Your task to perform on an android device: manage bookmarks in the chrome app Image 0: 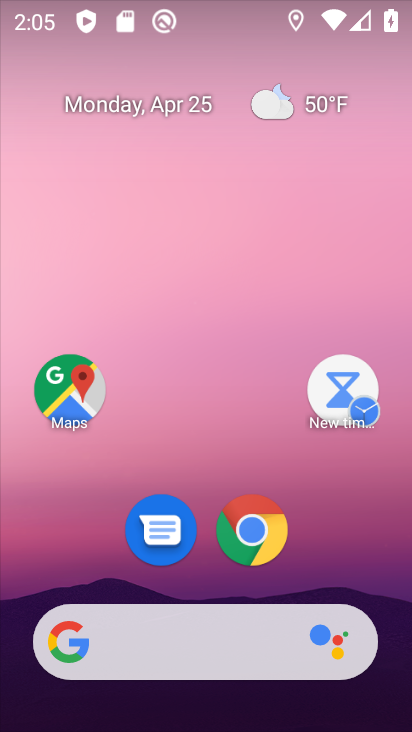
Step 0: drag from (197, 591) to (189, 4)
Your task to perform on an android device: manage bookmarks in the chrome app Image 1: 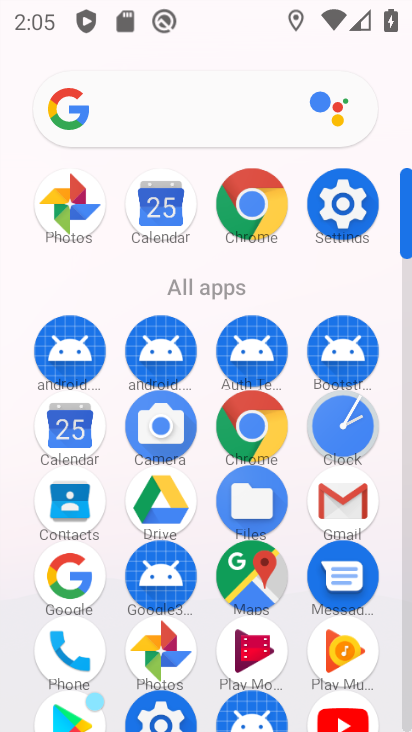
Step 1: click (257, 437)
Your task to perform on an android device: manage bookmarks in the chrome app Image 2: 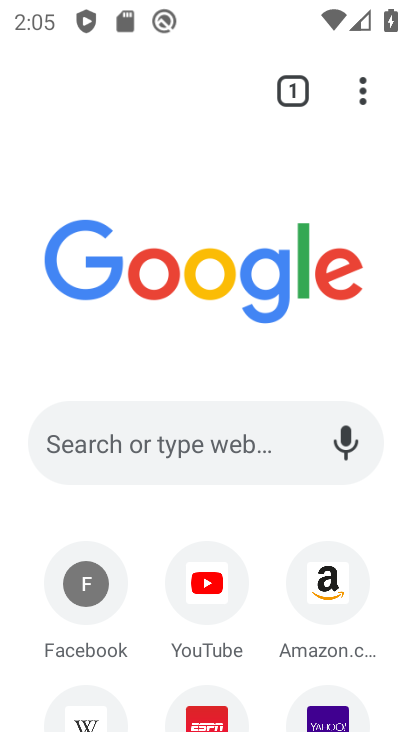
Step 2: drag from (361, 99) to (118, 354)
Your task to perform on an android device: manage bookmarks in the chrome app Image 3: 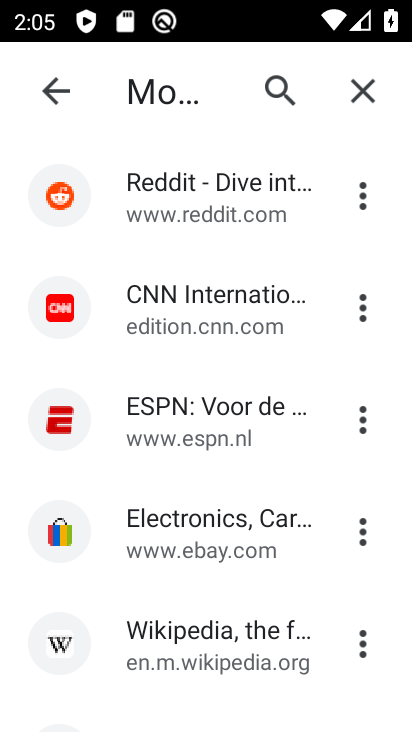
Step 3: drag from (198, 489) to (184, 357)
Your task to perform on an android device: manage bookmarks in the chrome app Image 4: 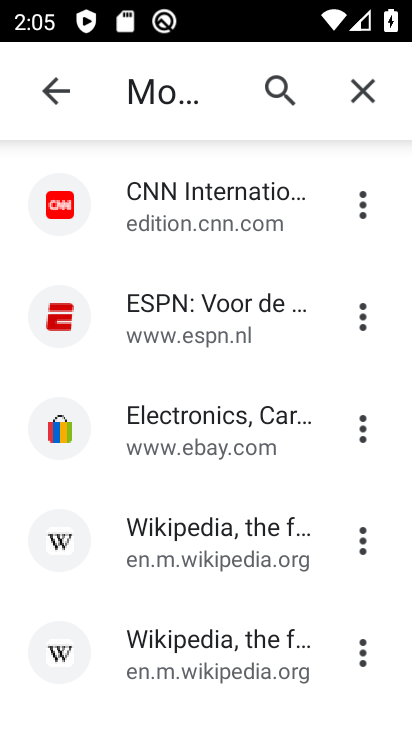
Step 4: click (359, 424)
Your task to perform on an android device: manage bookmarks in the chrome app Image 5: 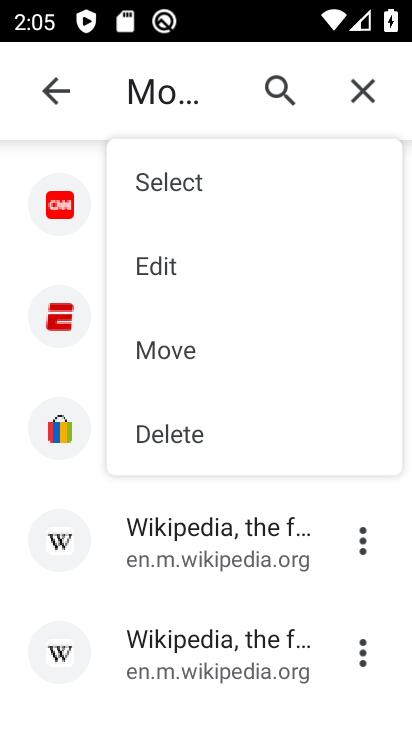
Step 5: click (155, 263)
Your task to perform on an android device: manage bookmarks in the chrome app Image 6: 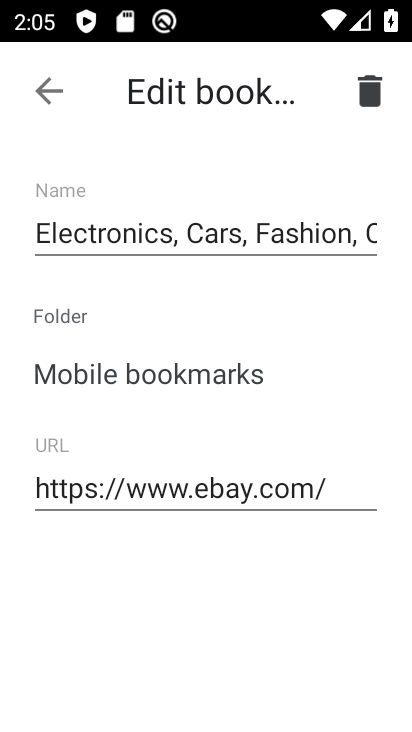
Step 6: click (381, 89)
Your task to perform on an android device: manage bookmarks in the chrome app Image 7: 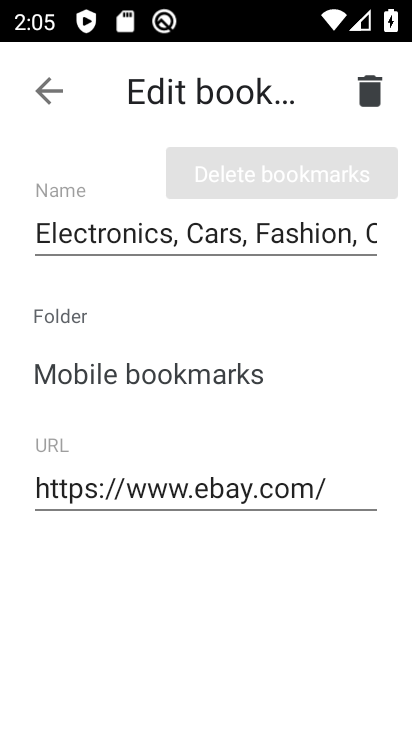
Step 7: click (343, 161)
Your task to perform on an android device: manage bookmarks in the chrome app Image 8: 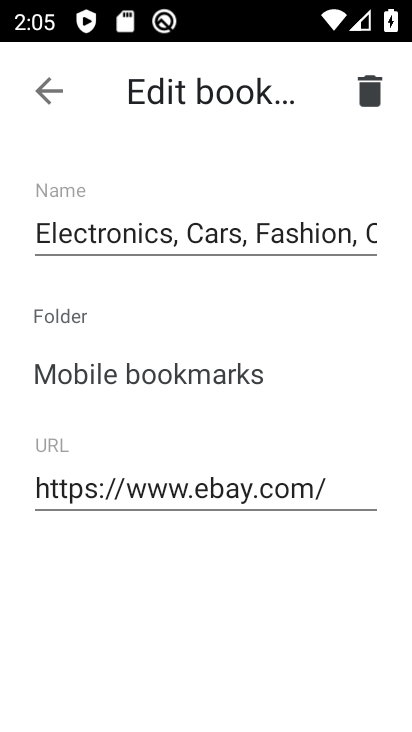
Step 8: task complete